Your task to perform on an android device: Open network settings Image 0: 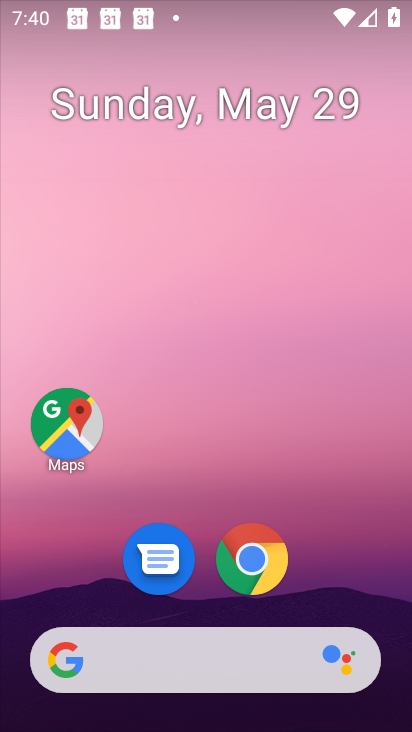
Step 0: drag from (380, 616) to (369, 226)
Your task to perform on an android device: Open network settings Image 1: 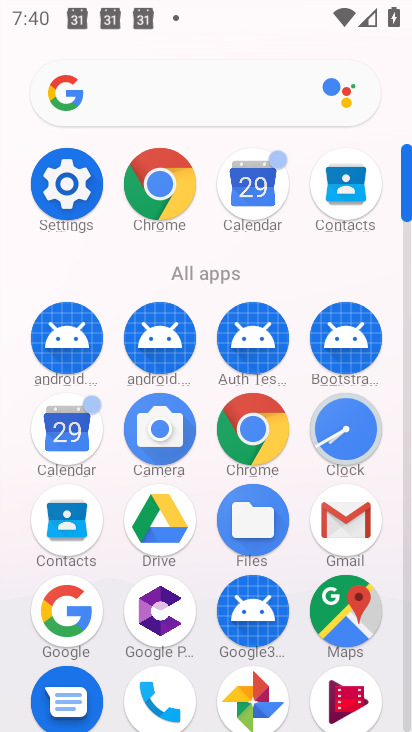
Step 1: click (70, 204)
Your task to perform on an android device: Open network settings Image 2: 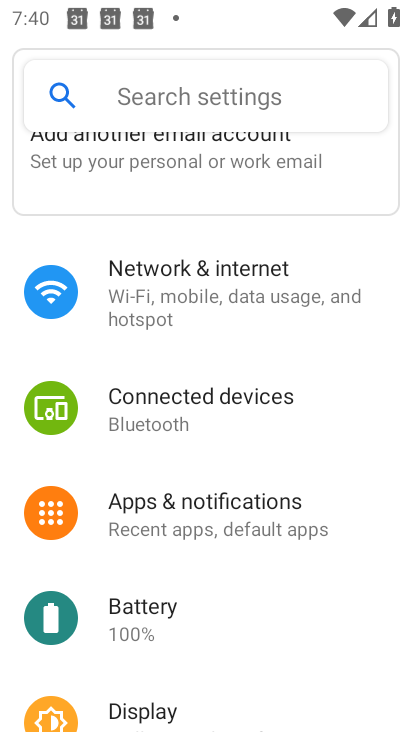
Step 2: click (194, 285)
Your task to perform on an android device: Open network settings Image 3: 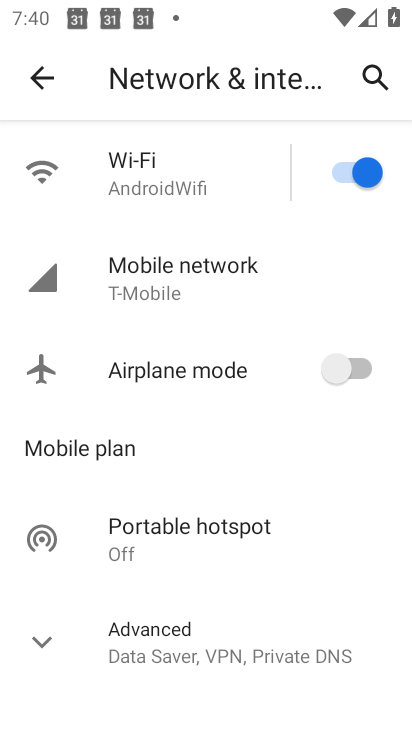
Step 3: click (194, 285)
Your task to perform on an android device: Open network settings Image 4: 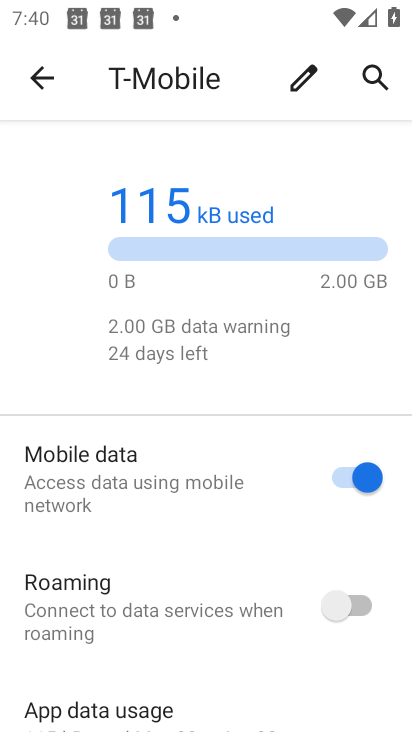
Step 4: drag from (291, 553) to (292, 449)
Your task to perform on an android device: Open network settings Image 5: 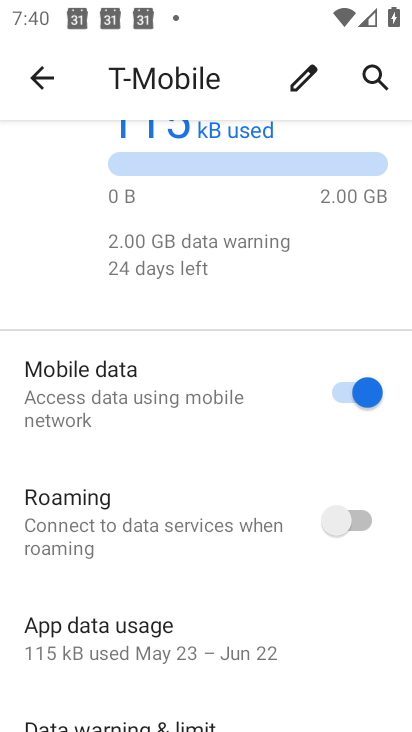
Step 5: drag from (297, 604) to (298, 519)
Your task to perform on an android device: Open network settings Image 6: 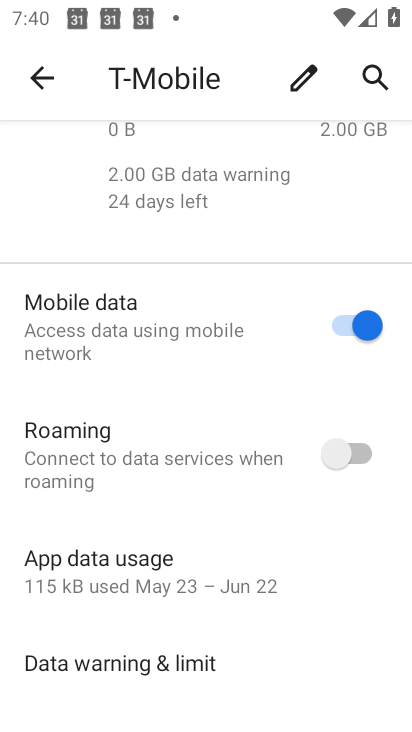
Step 6: drag from (306, 620) to (291, 513)
Your task to perform on an android device: Open network settings Image 7: 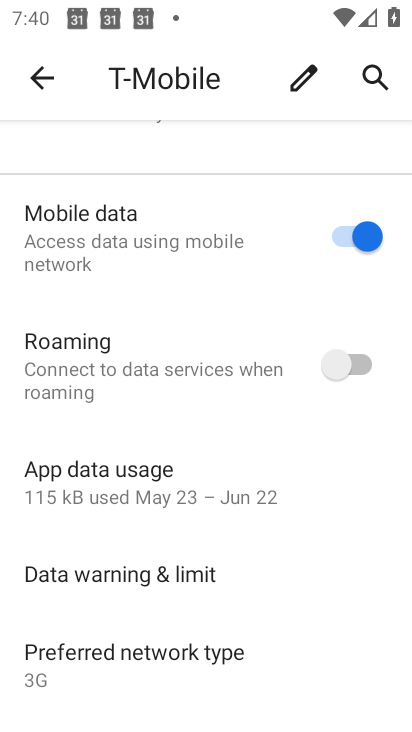
Step 7: drag from (293, 601) to (296, 519)
Your task to perform on an android device: Open network settings Image 8: 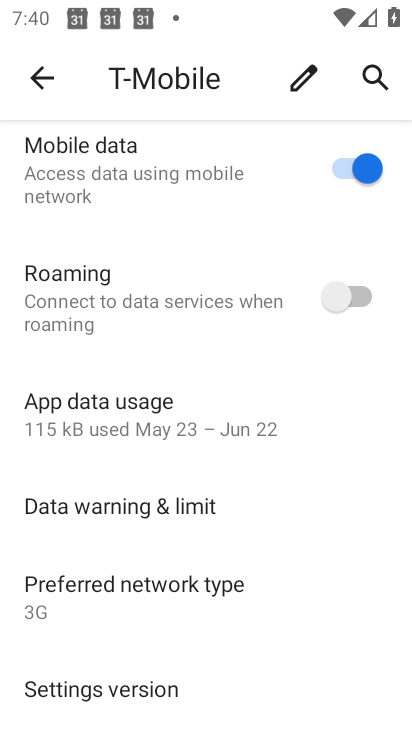
Step 8: drag from (294, 607) to (306, 510)
Your task to perform on an android device: Open network settings Image 9: 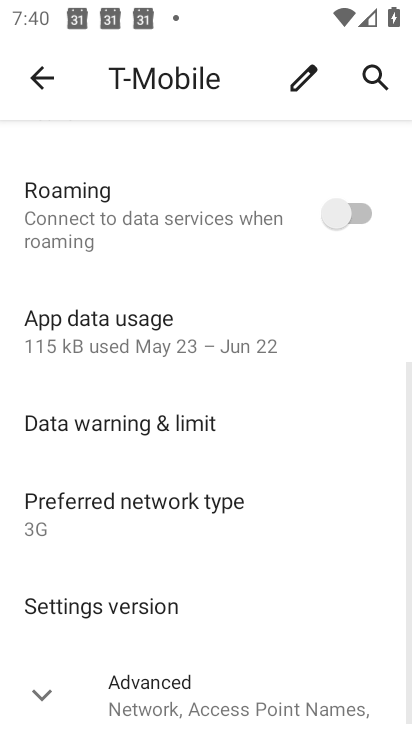
Step 9: drag from (297, 596) to (289, 496)
Your task to perform on an android device: Open network settings Image 10: 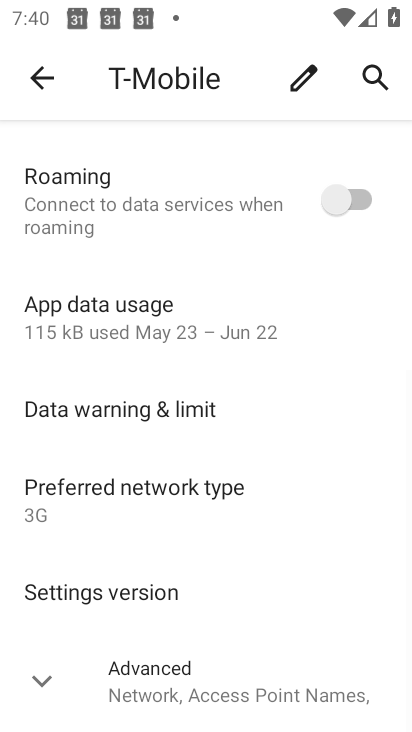
Step 10: click (241, 663)
Your task to perform on an android device: Open network settings Image 11: 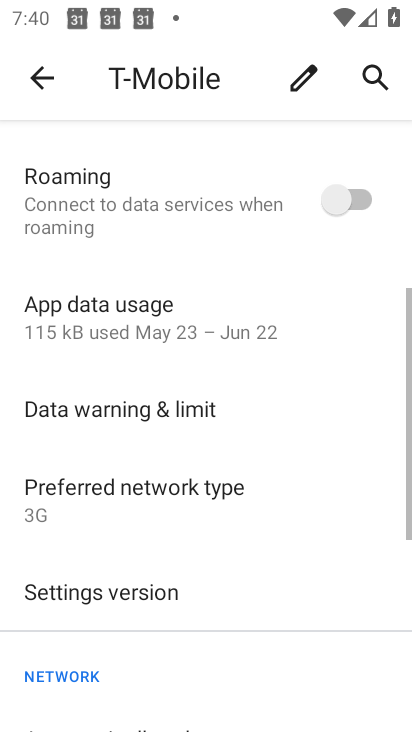
Step 11: task complete